Your task to perform on an android device: Open the map Image 0: 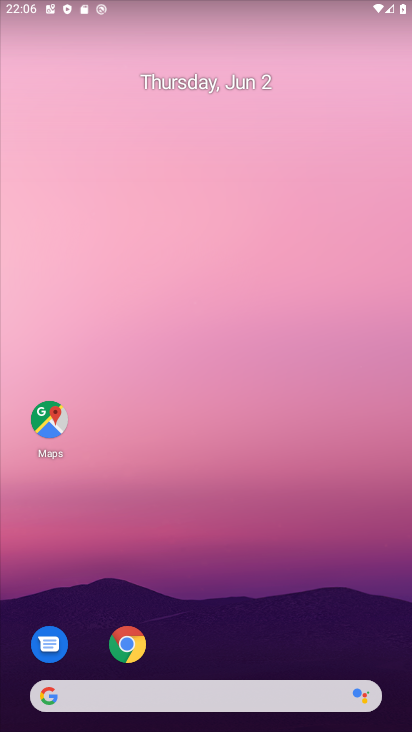
Step 0: click (47, 430)
Your task to perform on an android device: Open the map Image 1: 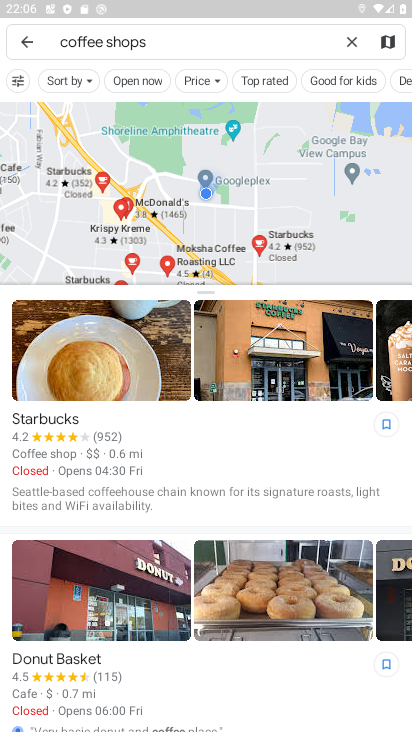
Step 1: task complete